Your task to perform on an android device: Toggle the flashlight Image 0: 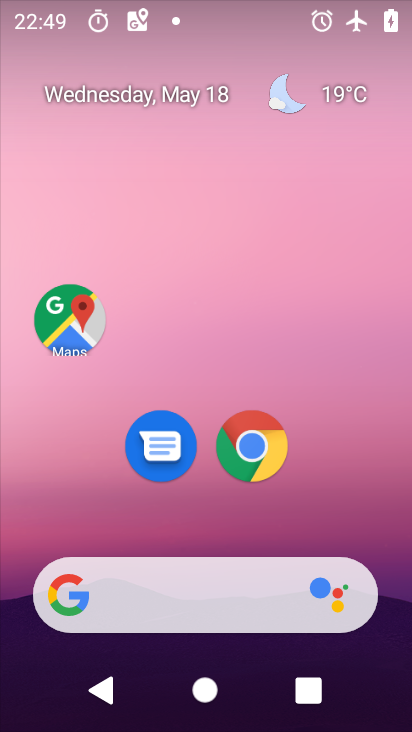
Step 0: drag from (248, 4) to (201, 475)
Your task to perform on an android device: Toggle the flashlight Image 1: 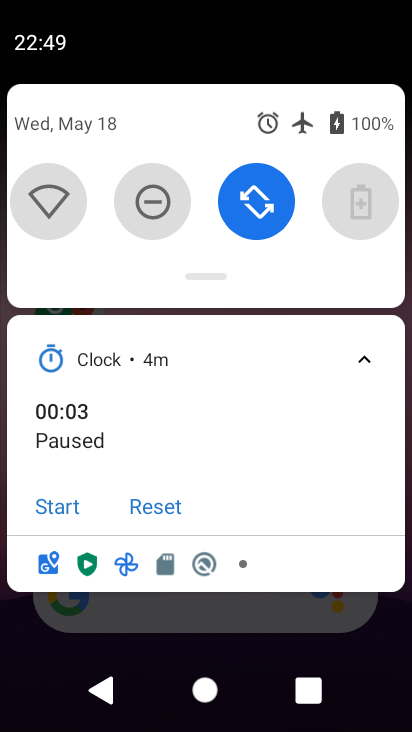
Step 1: task complete